Your task to perform on an android device: turn off airplane mode Image 0: 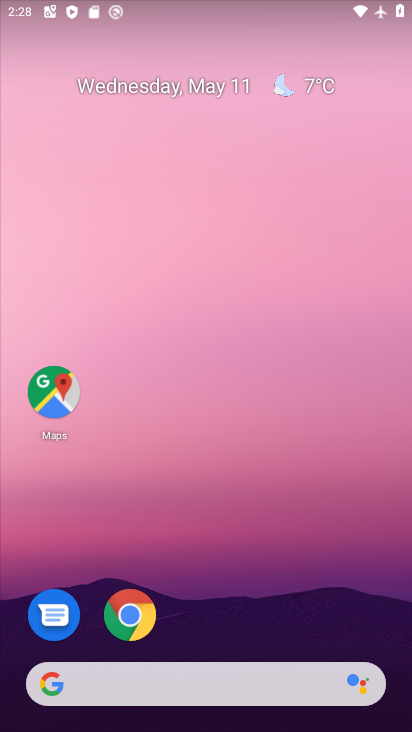
Step 0: drag from (236, 2) to (331, 594)
Your task to perform on an android device: turn off airplane mode Image 1: 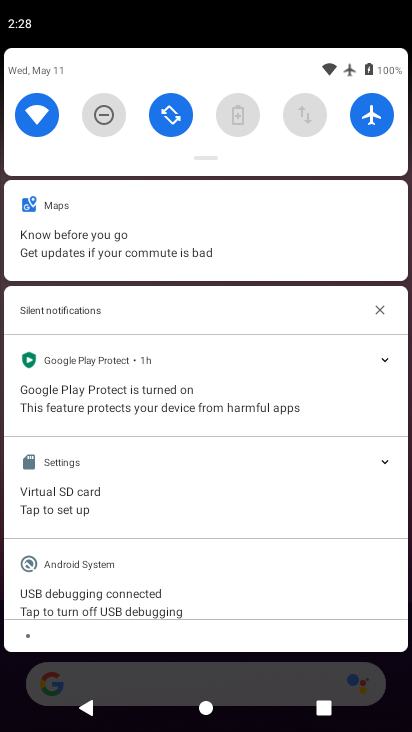
Step 1: click (369, 113)
Your task to perform on an android device: turn off airplane mode Image 2: 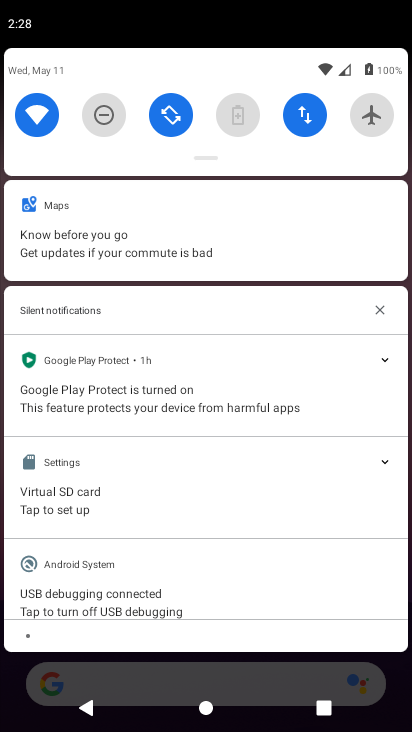
Step 2: task complete